Your task to perform on an android device: What is the recent news? Image 0: 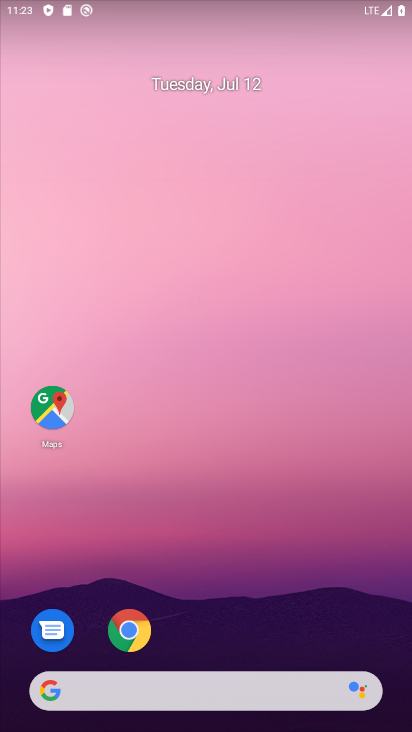
Step 0: drag from (368, 623) to (140, 27)
Your task to perform on an android device: What is the recent news? Image 1: 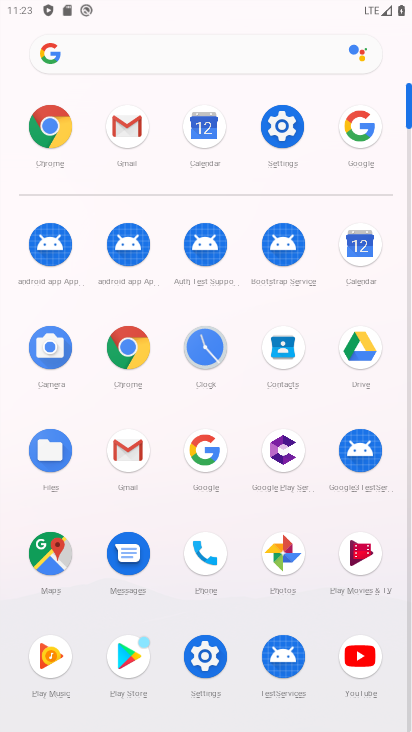
Step 1: click (186, 452)
Your task to perform on an android device: What is the recent news? Image 2: 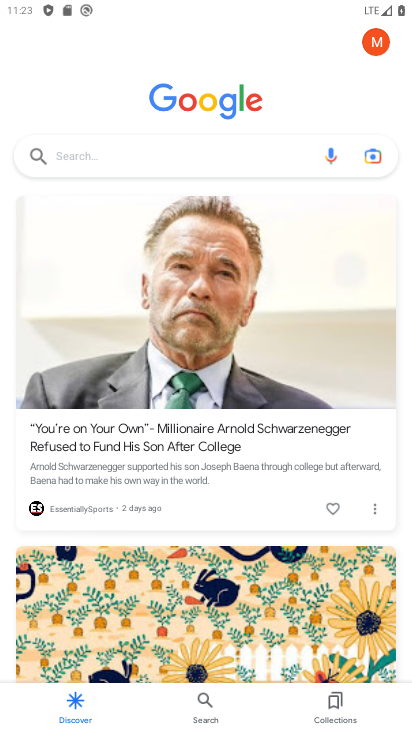
Step 2: click (166, 156)
Your task to perform on an android device: What is the recent news? Image 3: 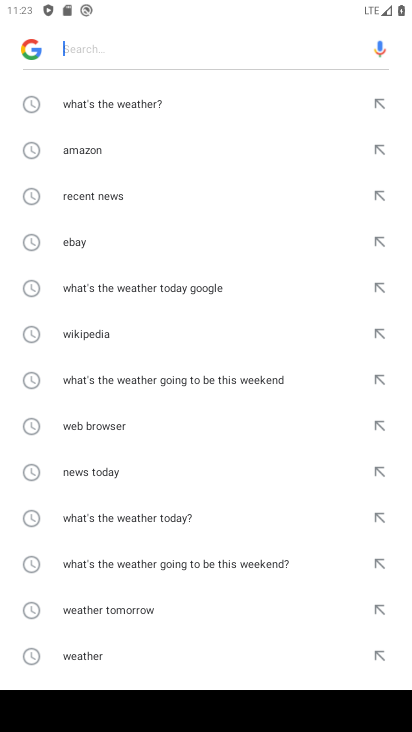
Step 3: click (119, 205)
Your task to perform on an android device: What is the recent news? Image 4: 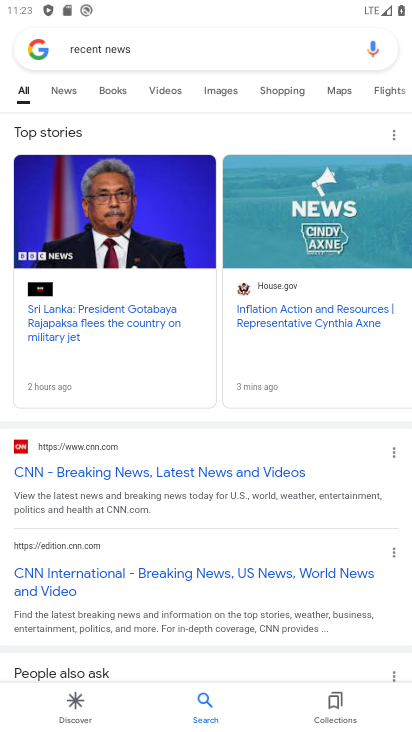
Step 4: task complete